Your task to perform on an android device: open app "HBO Max: Stream TV & Movies" Image 0: 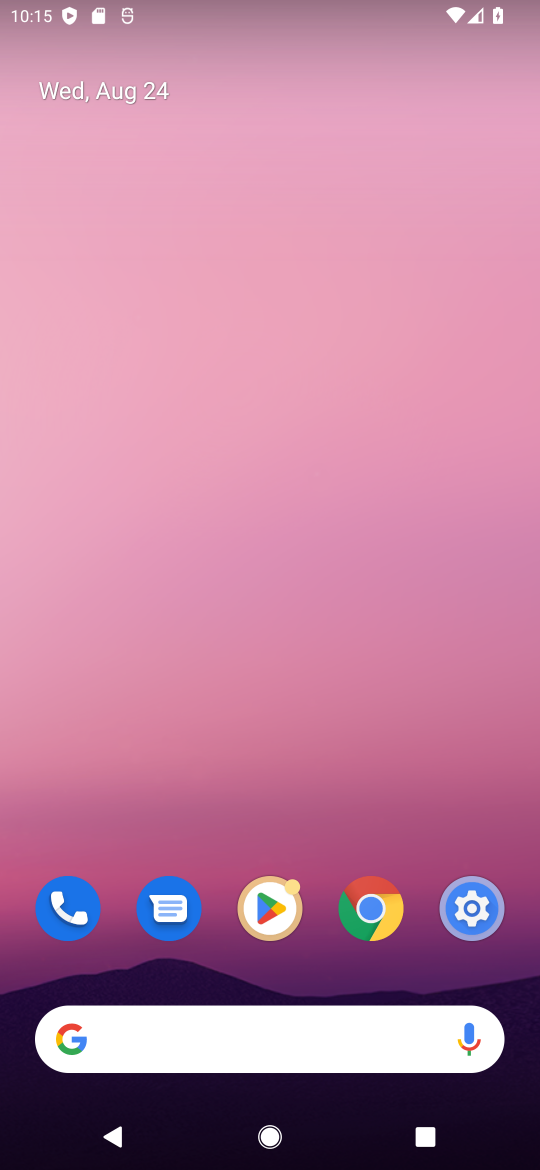
Step 0: click (275, 938)
Your task to perform on an android device: open app "HBO Max: Stream TV & Movies" Image 1: 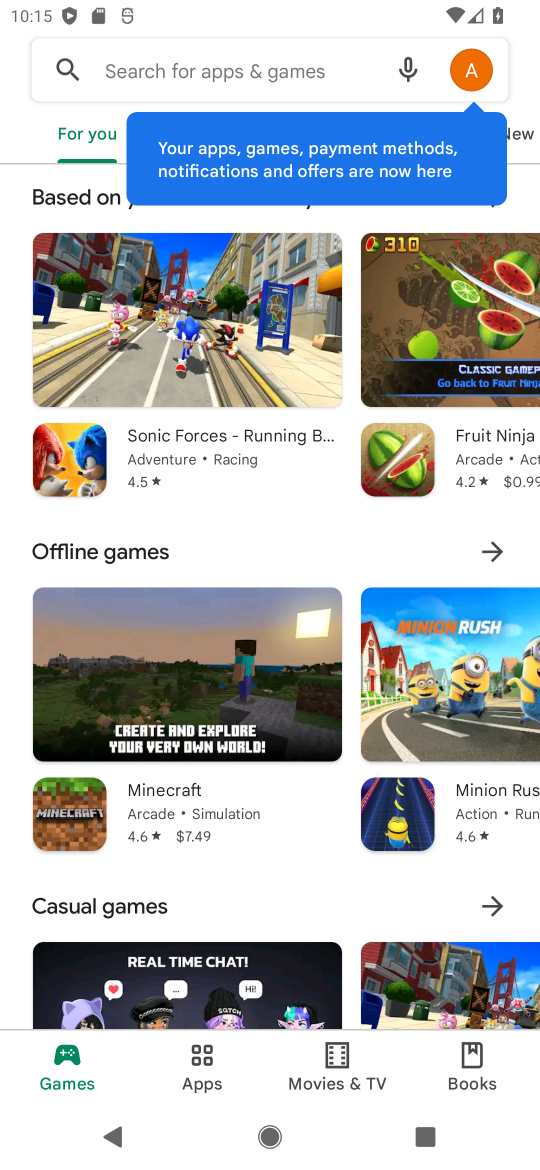
Step 1: click (154, 81)
Your task to perform on an android device: open app "HBO Max: Stream TV & Movies" Image 2: 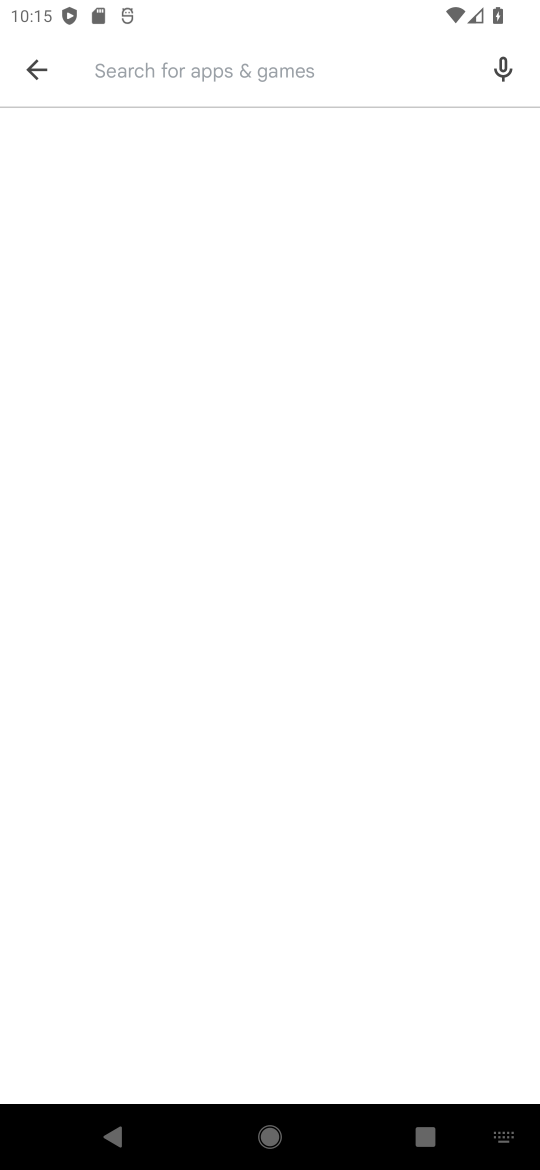
Step 2: type "HBO Max: Stream TV & Movies"
Your task to perform on an android device: open app "HBO Max: Stream TV & Movies" Image 3: 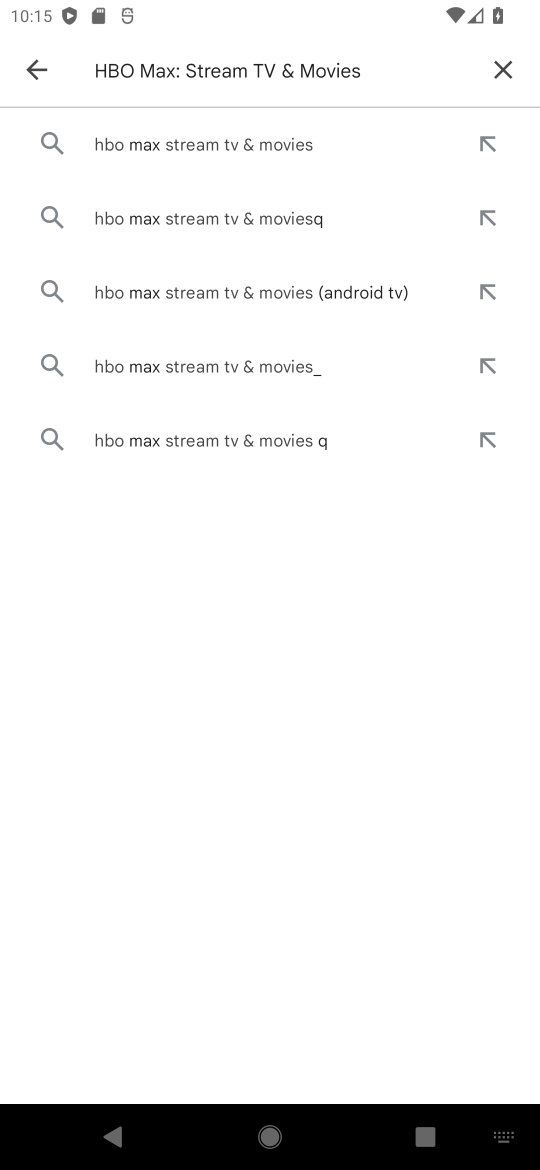
Step 3: click (135, 141)
Your task to perform on an android device: open app "HBO Max: Stream TV & Movies" Image 4: 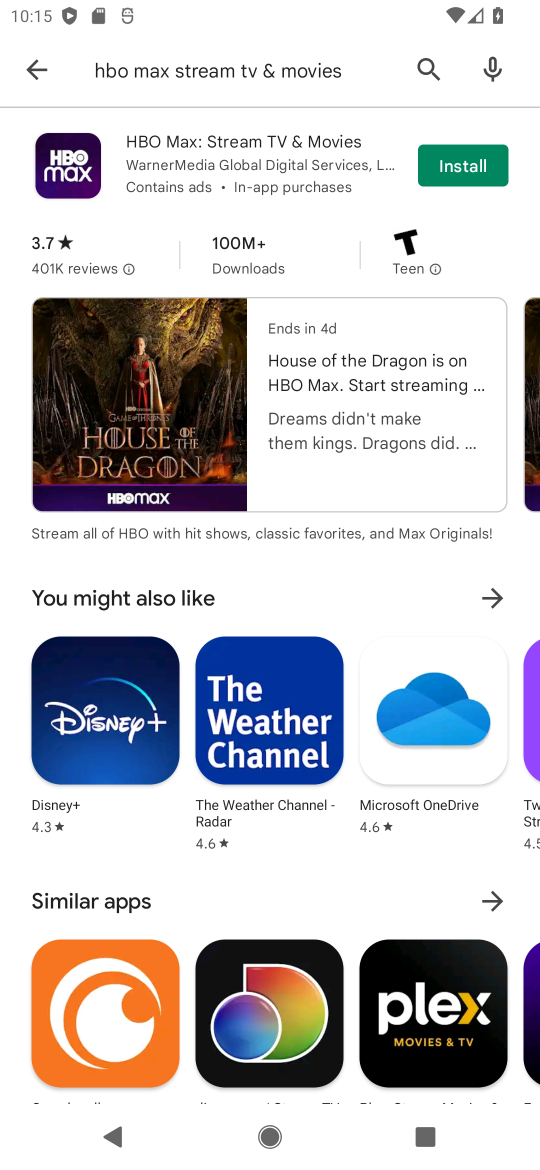
Step 4: task complete